Your task to perform on an android device: clear all cookies in the chrome app Image 0: 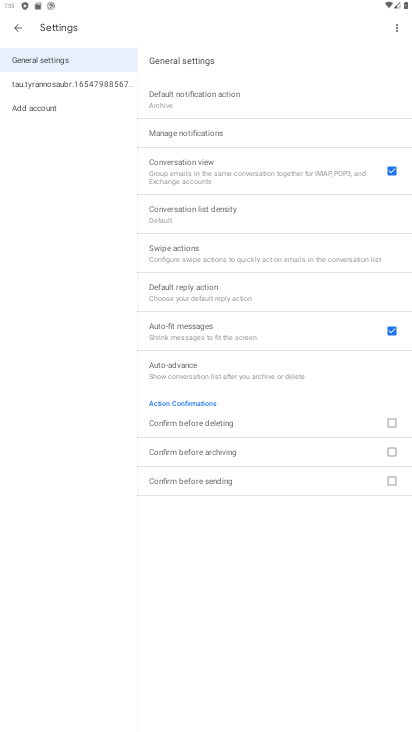
Step 0: task complete